Your task to perform on an android device: Find coffee shops on Maps Image 0: 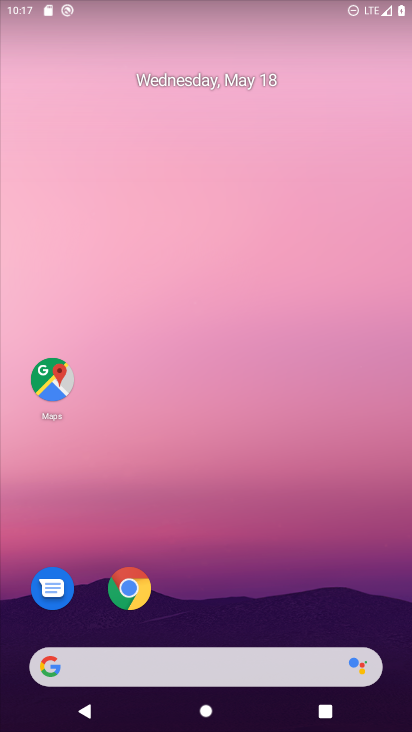
Step 0: click (52, 378)
Your task to perform on an android device: Find coffee shops on Maps Image 1: 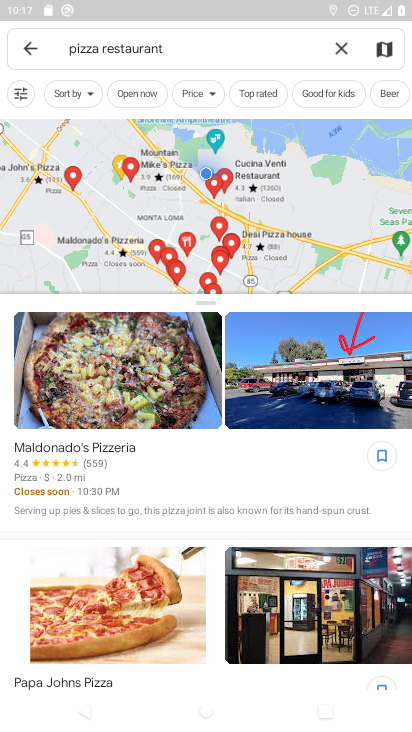
Step 1: click (337, 48)
Your task to perform on an android device: Find coffee shops on Maps Image 2: 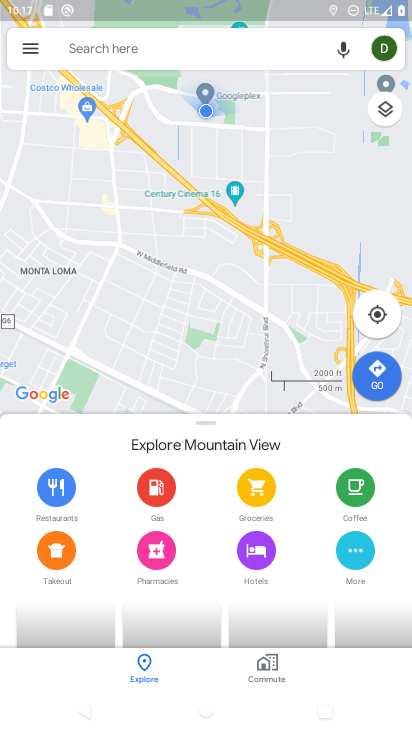
Step 2: click (76, 46)
Your task to perform on an android device: Find coffee shops on Maps Image 3: 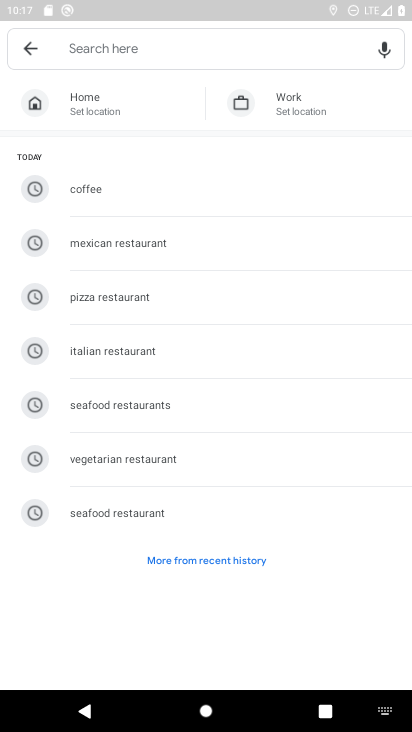
Step 3: type "coffee shop"
Your task to perform on an android device: Find coffee shops on Maps Image 4: 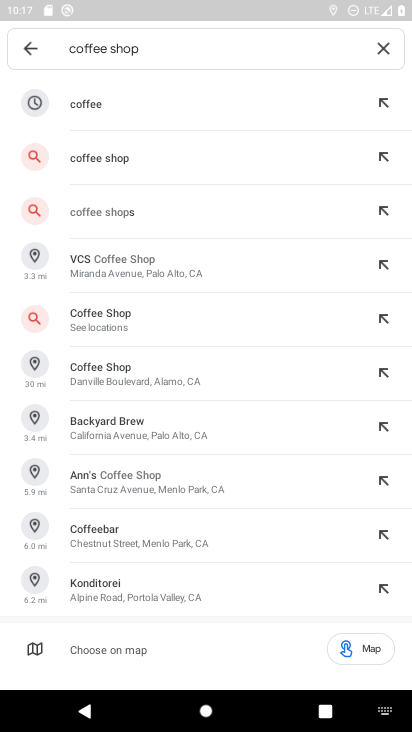
Step 4: click (105, 158)
Your task to perform on an android device: Find coffee shops on Maps Image 5: 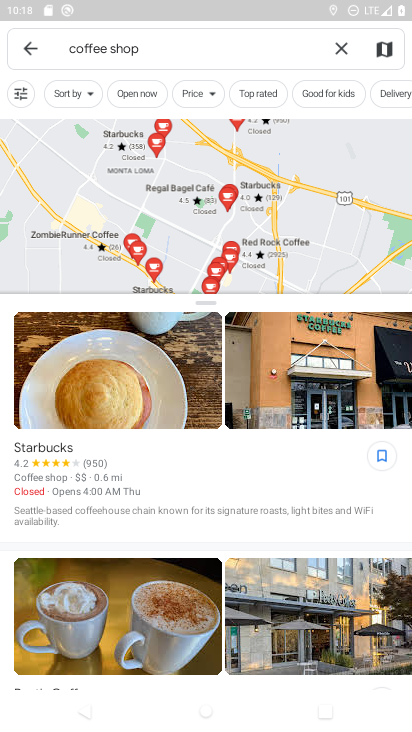
Step 5: task complete